Your task to perform on an android device: search for starred emails in the gmail app Image 0: 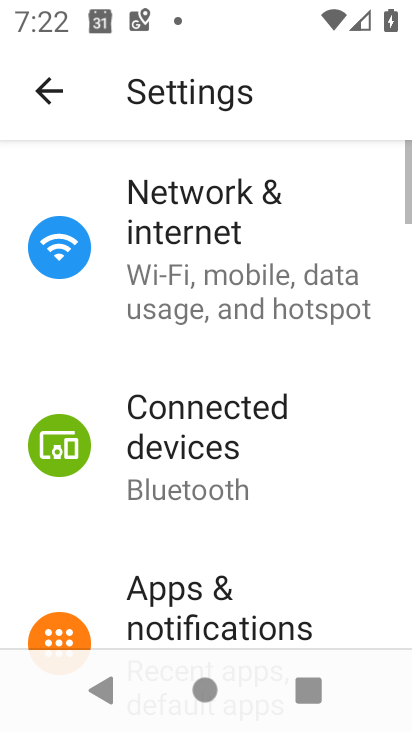
Step 0: press home button
Your task to perform on an android device: search for starred emails in the gmail app Image 1: 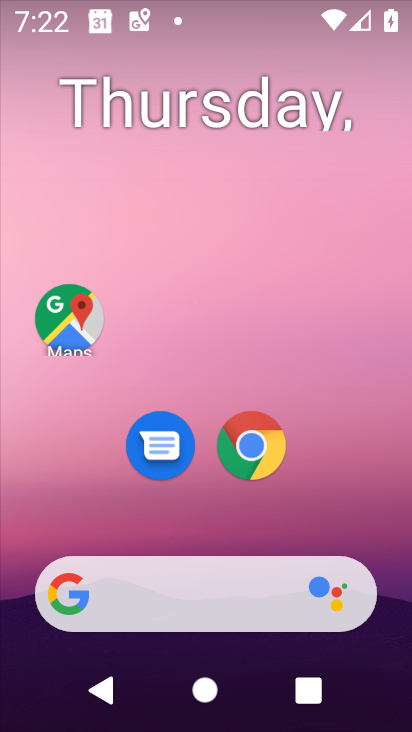
Step 1: drag from (392, 662) to (315, 27)
Your task to perform on an android device: search for starred emails in the gmail app Image 2: 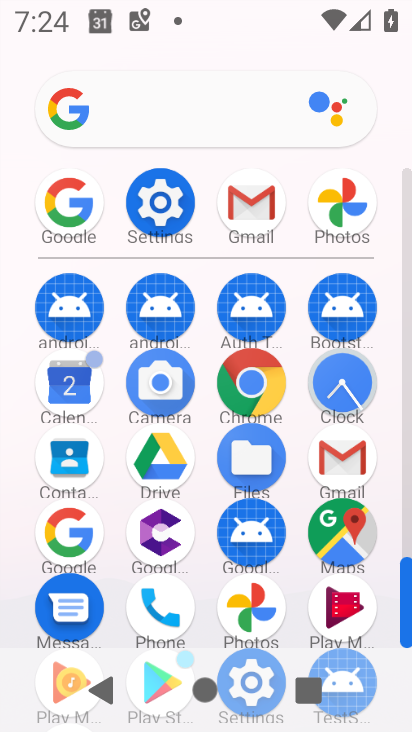
Step 2: click (358, 475)
Your task to perform on an android device: search for starred emails in the gmail app Image 3: 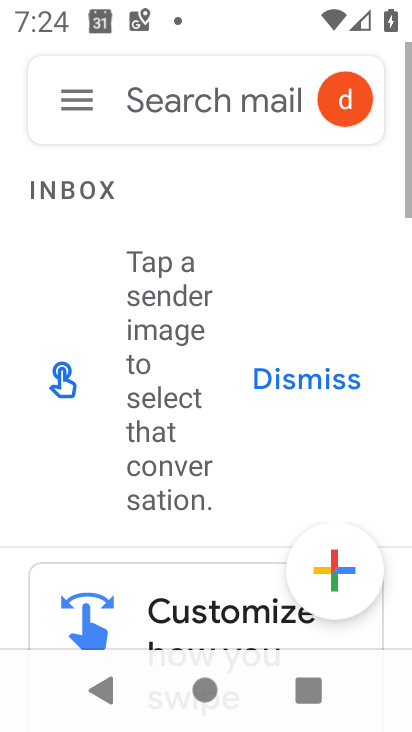
Step 3: click (64, 107)
Your task to perform on an android device: search for starred emails in the gmail app Image 4: 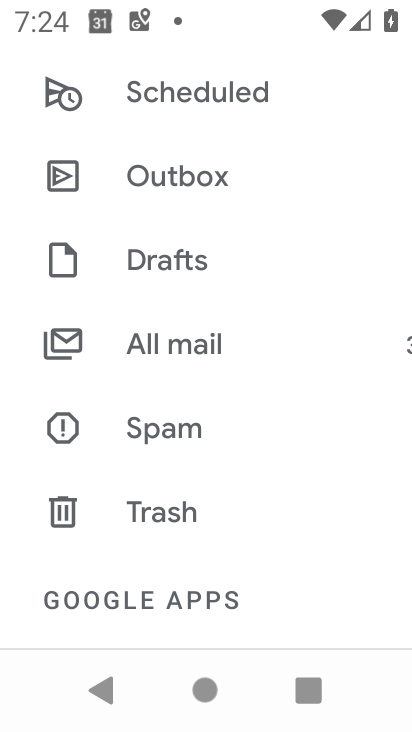
Step 4: drag from (157, 209) to (212, 730)
Your task to perform on an android device: search for starred emails in the gmail app Image 5: 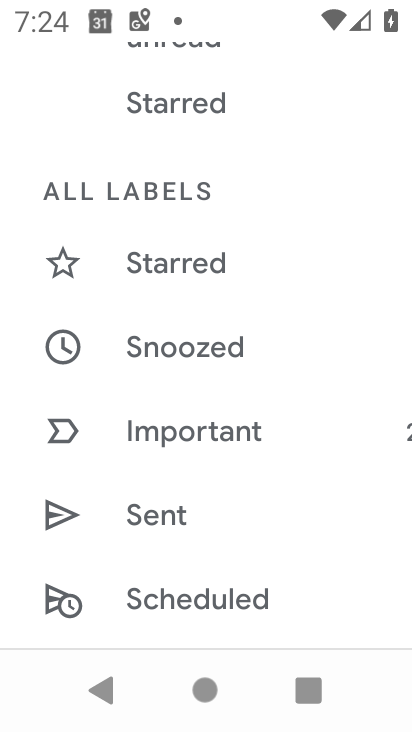
Step 5: click (204, 261)
Your task to perform on an android device: search for starred emails in the gmail app Image 6: 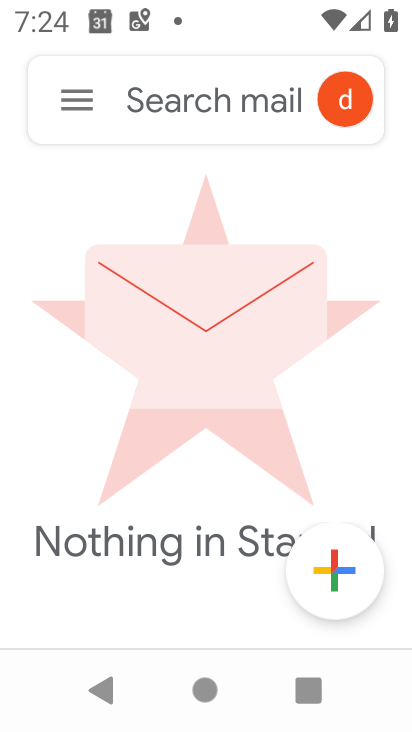
Step 6: task complete